Your task to perform on an android device: all mails in gmail Image 0: 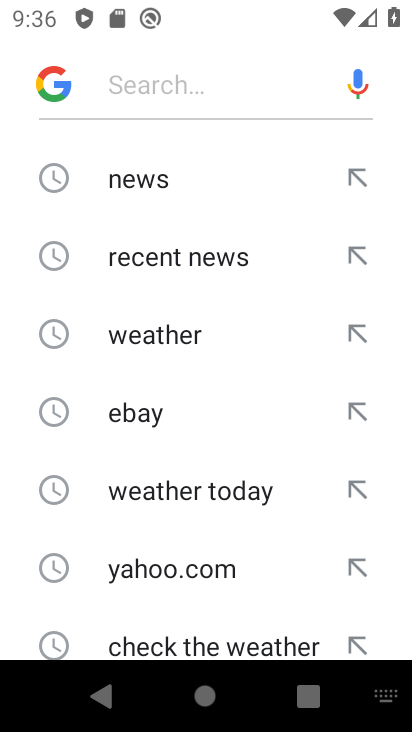
Step 0: press back button
Your task to perform on an android device: all mails in gmail Image 1: 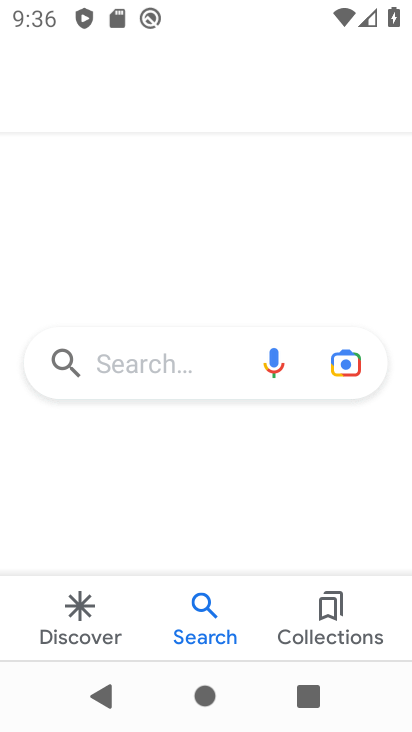
Step 1: press back button
Your task to perform on an android device: all mails in gmail Image 2: 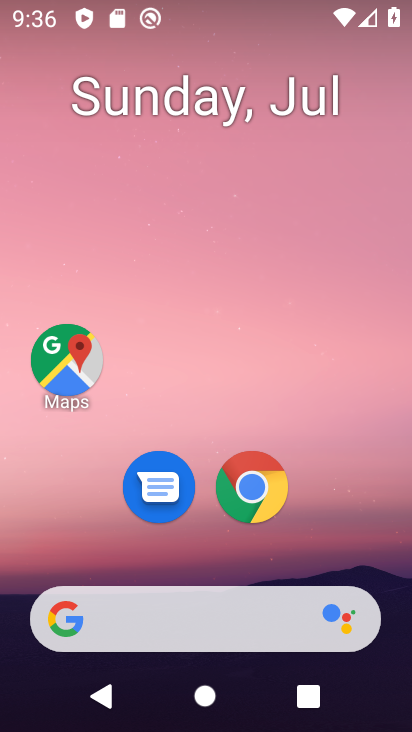
Step 2: drag from (146, 539) to (146, 6)
Your task to perform on an android device: all mails in gmail Image 3: 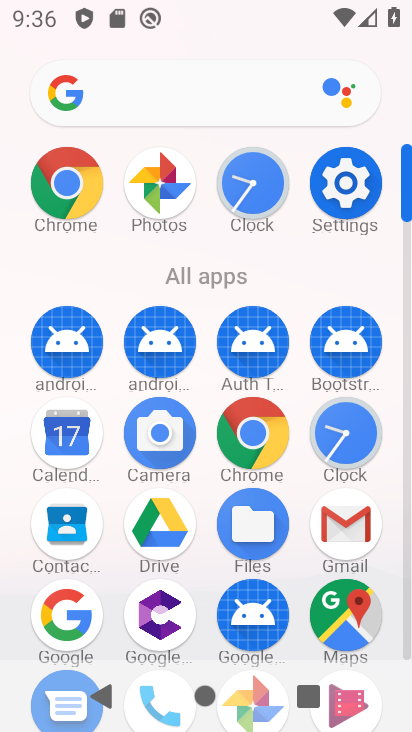
Step 3: click (347, 542)
Your task to perform on an android device: all mails in gmail Image 4: 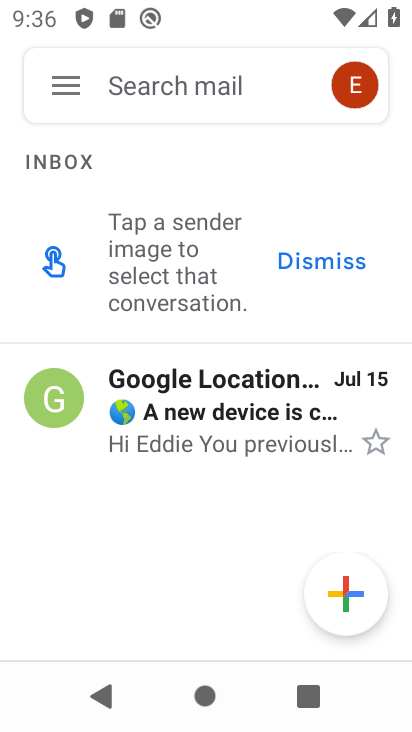
Step 4: click (69, 83)
Your task to perform on an android device: all mails in gmail Image 5: 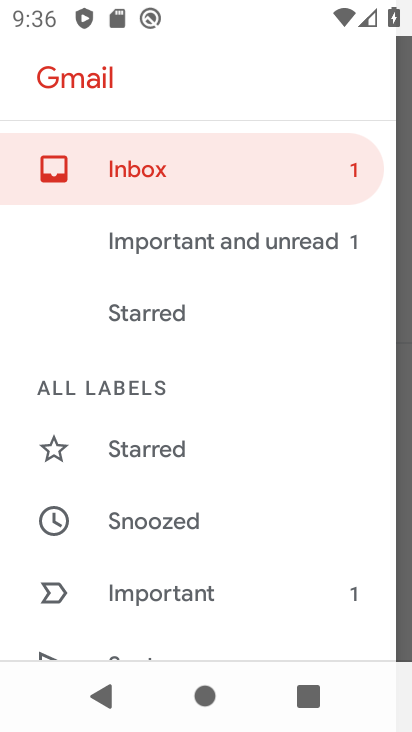
Step 5: drag from (158, 583) to (193, 176)
Your task to perform on an android device: all mails in gmail Image 6: 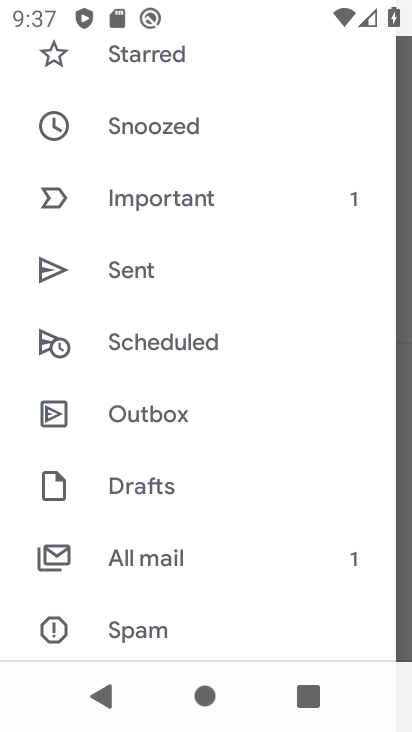
Step 6: click (140, 554)
Your task to perform on an android device: all mails in gmail Image 7: 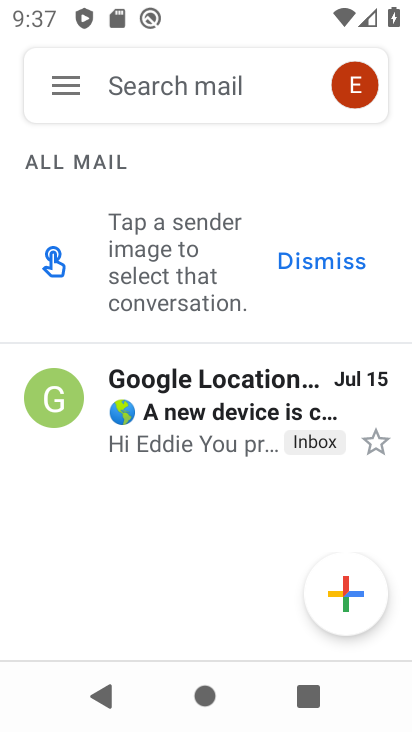
Step 7: task complete